Your task to perform on an android device: When is my next meeting? Image 0: 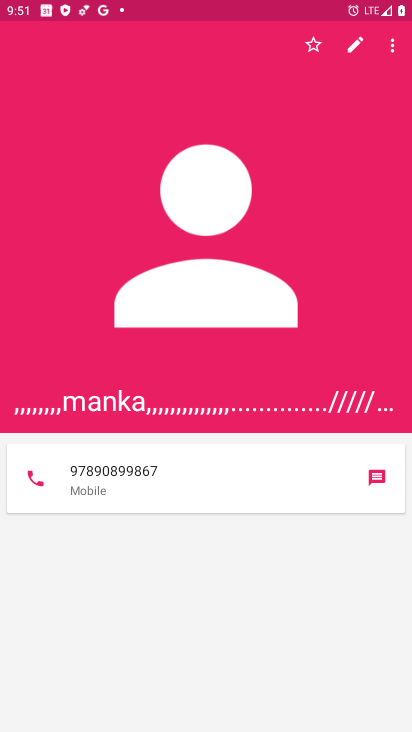
Step 0: press home button
Your task to perform on an android device: When is my next meeting? Image 1: 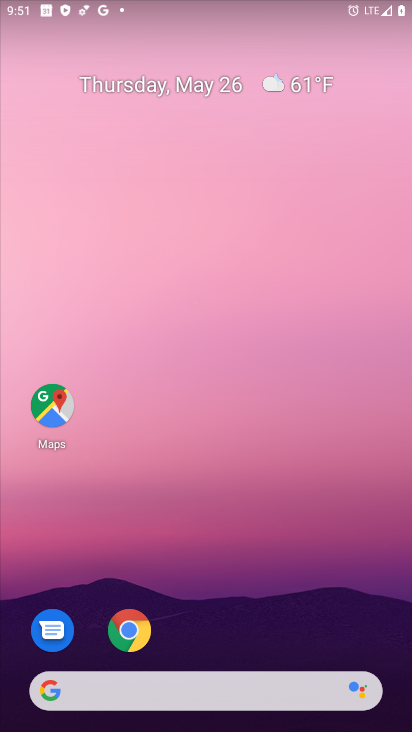
Step 1: drag from (228, 666) to (219, 55)
Your task to perform on an android device: When is my next meeting? Image 2: 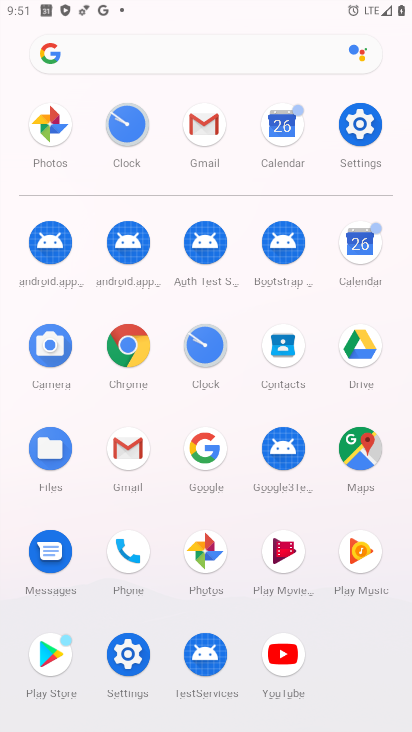
Step 2: click (370, 239)
Your task to perform on an android device: When is my next meeting? Image 3: 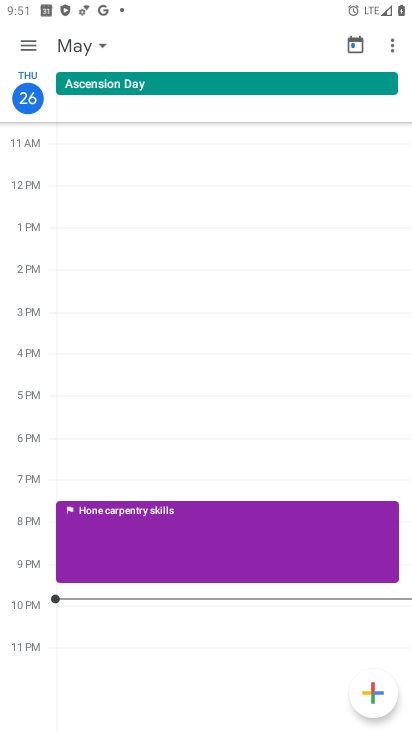
Step 3: click (25, 28)
Your task to perform on an android device: When is my next meeting? Image 4: 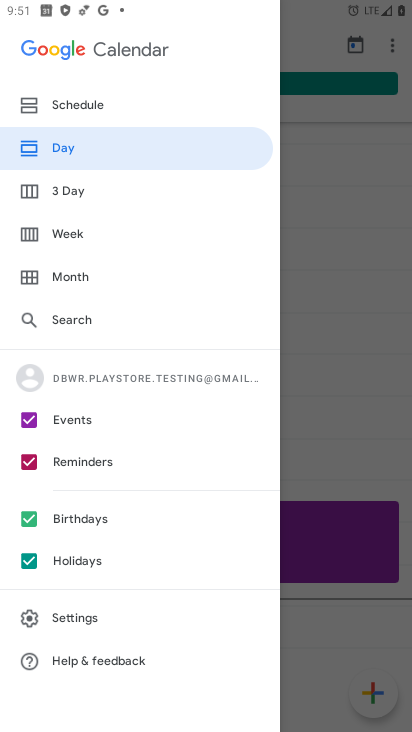
Step 4: click (49, 243)
Your task to perform on an android device: When is my next meeting? Image 5: 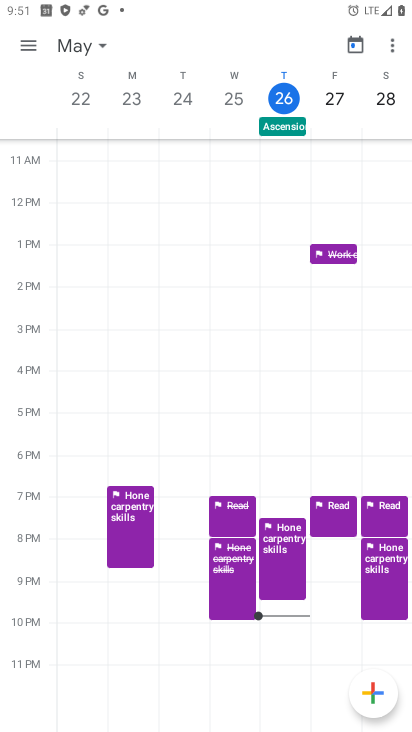
Step 5: task complete